Your task to perform on an android device: Go to internet settings Image 0: 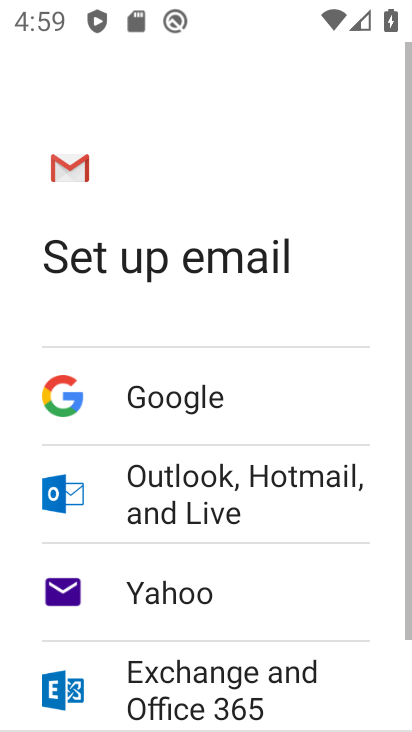
Step 0: click (265, 244)
Your task to perform on an android device: Go to internet settings Image 1: 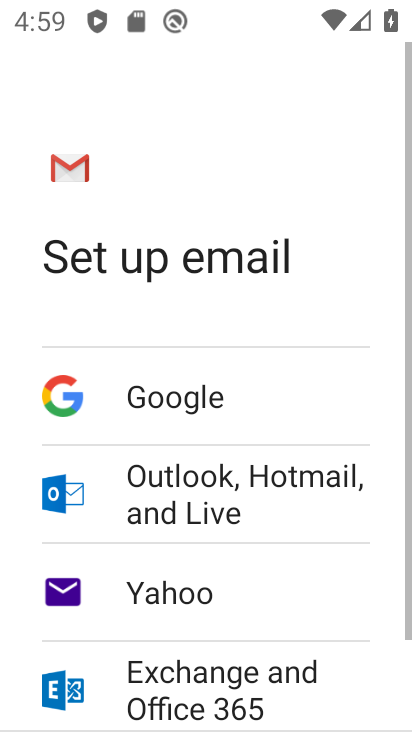
Step 1: press home button
Your task to perform on an android device: Go to internet settings Image 2: 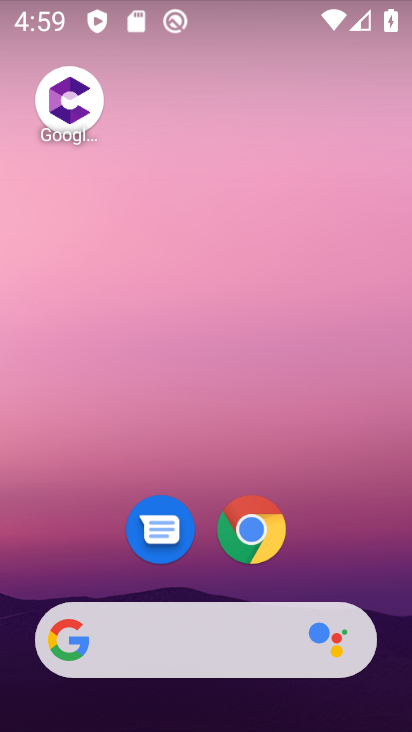
Step 2: drag from (345, 204) to (326, 102)
Your task to perform on an android device: Go to internet settings Image 3: 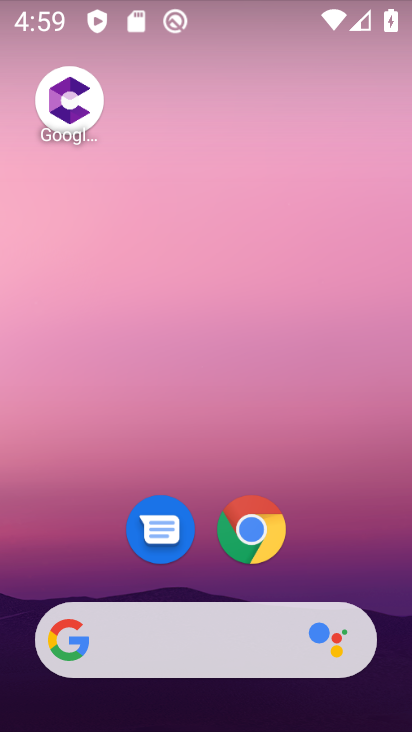
Step 3: drag from (372, 411) to (332, 117)
Your task to perform on an android device: Go to internet settings Image 4: 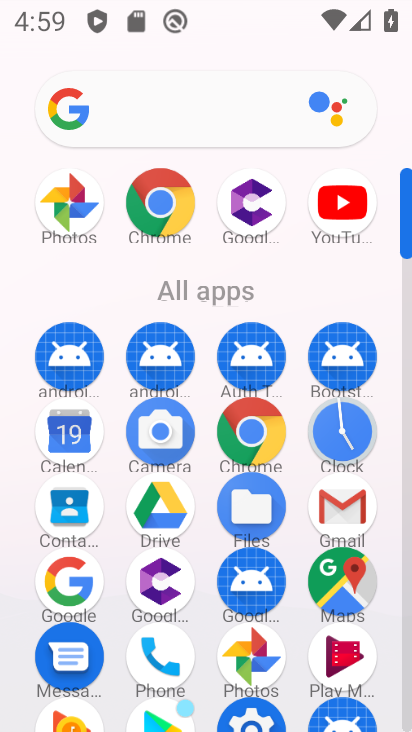
Step 4: click (237, 707)
Your task to perform on an android device: Go to internet settings Image 5: 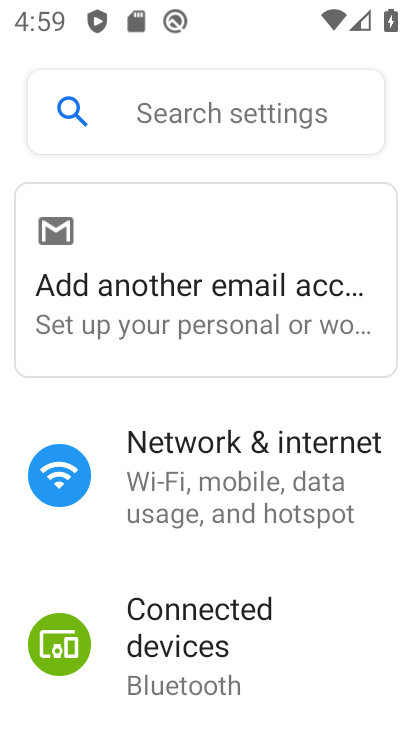
Step 5: drag from (312, 493) to (304, 224)
Your task to perform on an android device: Go to internet settings Image 6: 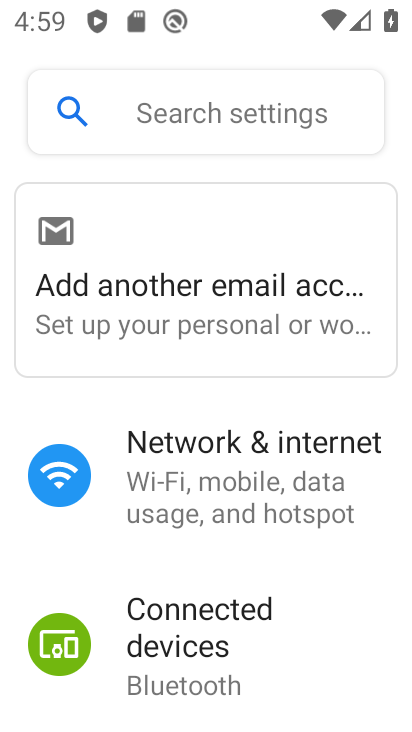
Step 6: drag from (323, 480) to (305, 187)
Your task to perform on an android device: Go to internet settings Image 7: 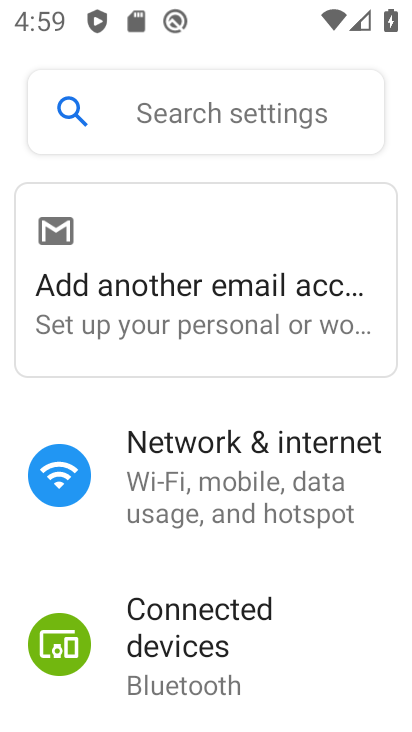
Step 7: drag from (339, 630) to (358, 216)
Your task to perform on an android device: Go to internet settings Image 8: 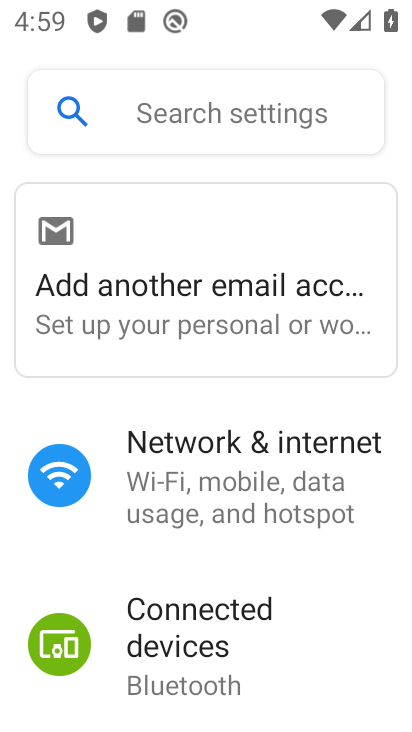
Step 8: click (187, 437)
Your task to perform on an android device: Go to internet settings Image 9: 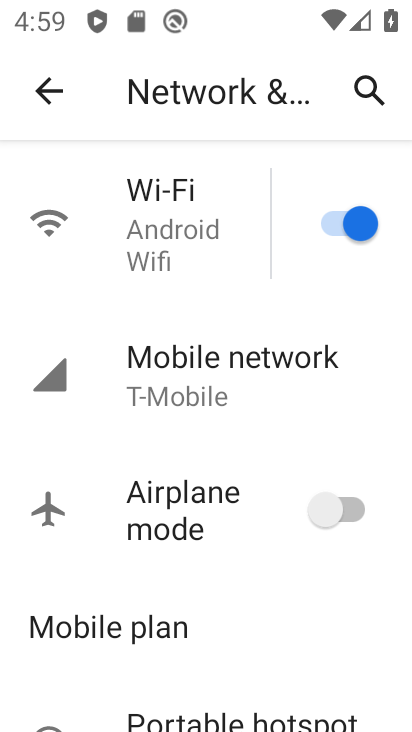
Step 9: click (168, 377)
Your task to perform on an android device: Go to internet settings Image 10: 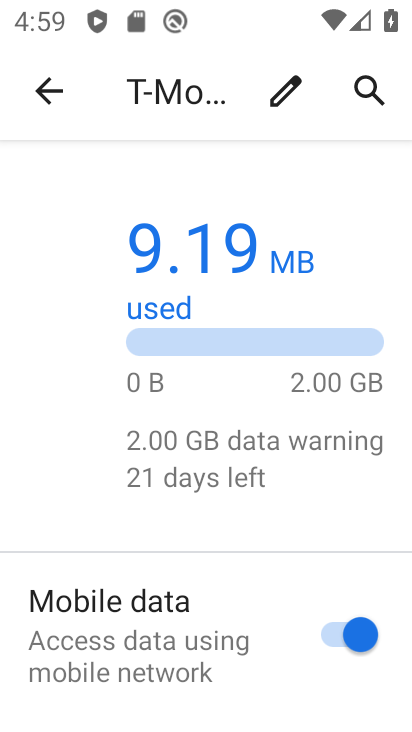
Step 10: task complete